Your task to perform on an android device: Go to Android settings Image 0: 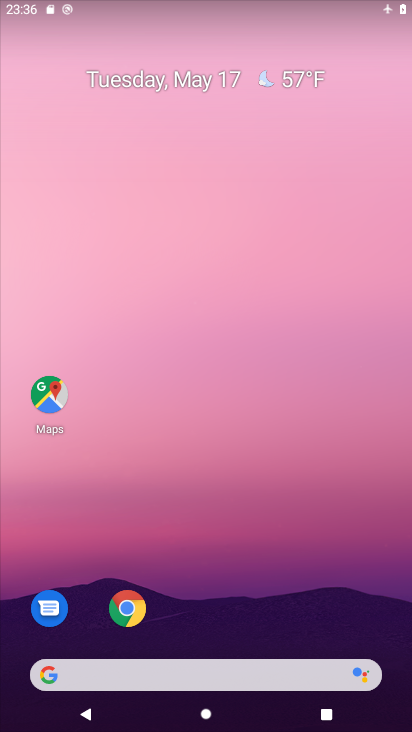
Step 0: drag from (221, 603) to (235, 17)
Your task to perform on an android device: Go to Android settings Image 1: 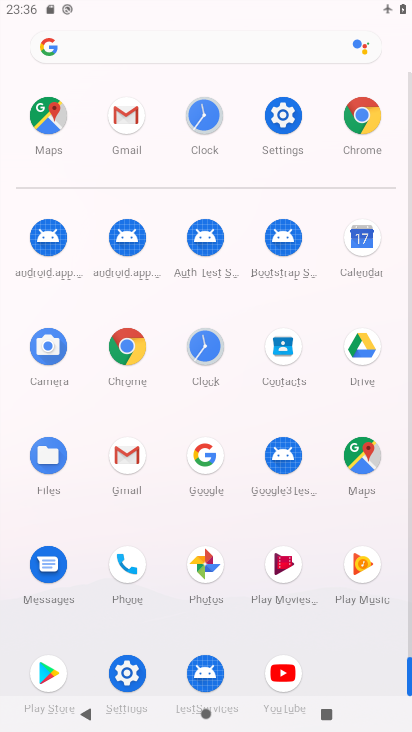
Step 1: click (281, 130)
Your task to perform on an android device: Go to Android settings Image 2: 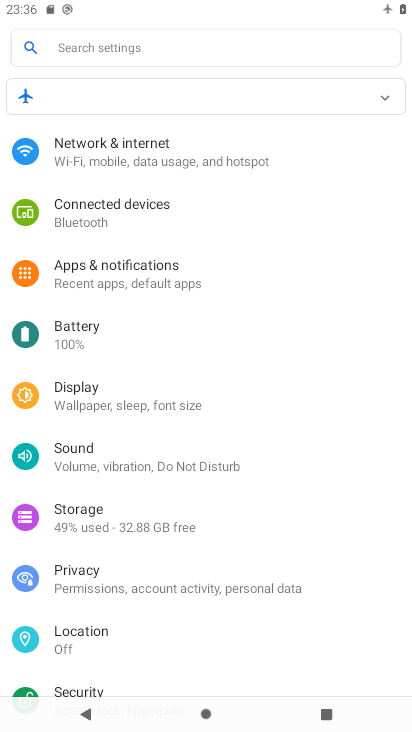
Step 2: drag from (165, 410) to (199, 166)
Your task to perform on an android device: Go to Android settings Image 3: 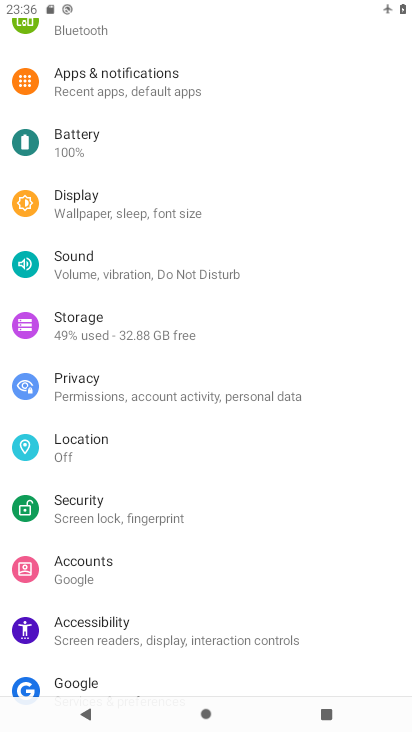
Step 3: drag from (160, 583) to (176, 259)
Your task to perform on an android device: Go to Android settings Image 4: 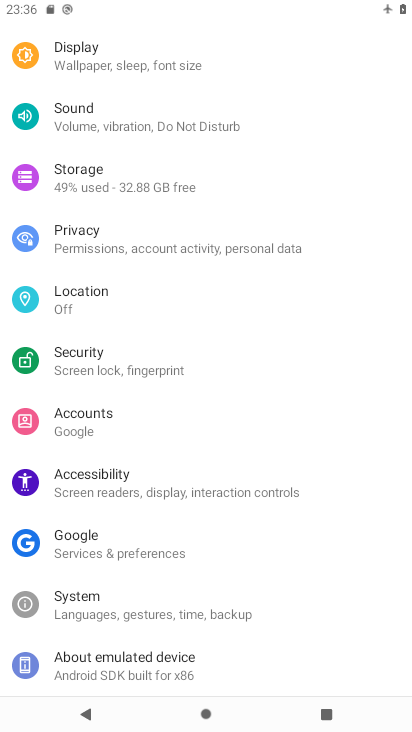
Step 4: drag from (145, 552) to (164, 392)
Your task to perform on an android device: Go to Android settings Image 5: 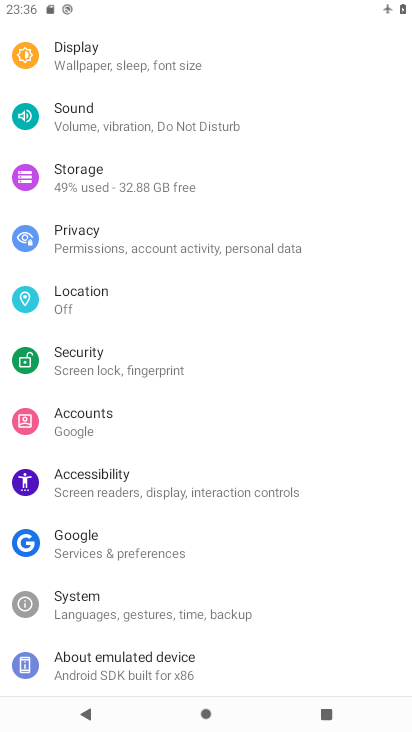
Step 5: click (126, 657)
Your task to perform on an android device: Go to Android settings Image 6: 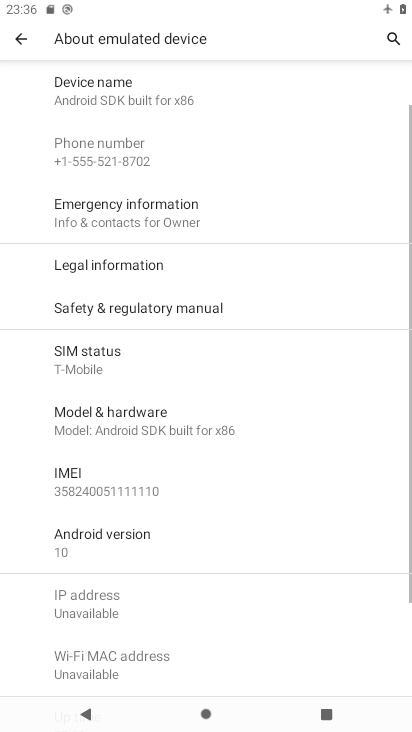
Step 6: click (100, 545)
Your task to perform on an android device: Go to Android settings Image 7: 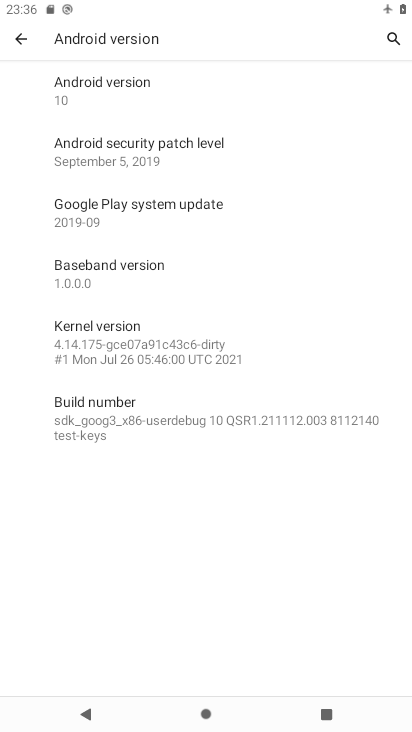
Step 7: task complete